Your task to perform on an android device: Go to Google maps Image 0: 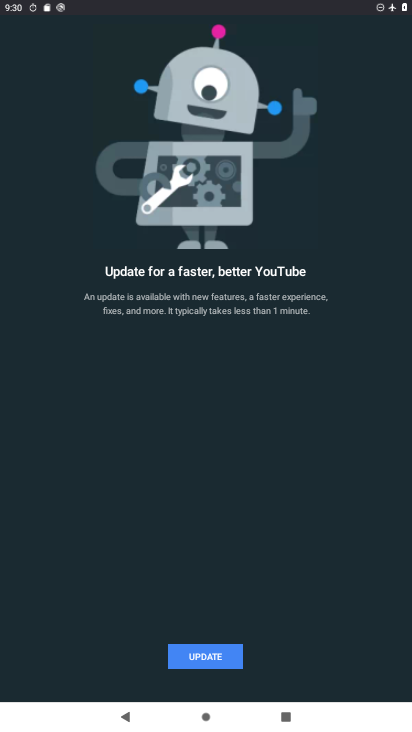
Step 0: press home button
Your task to perform on an android device: Go to Google maps Image 1: 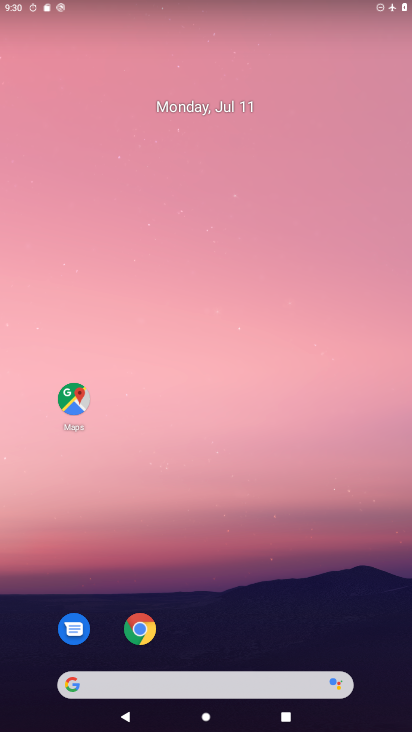
Step 1: click (73, 404)
Your task to perform on an android device: Go to Google maps Image 2: 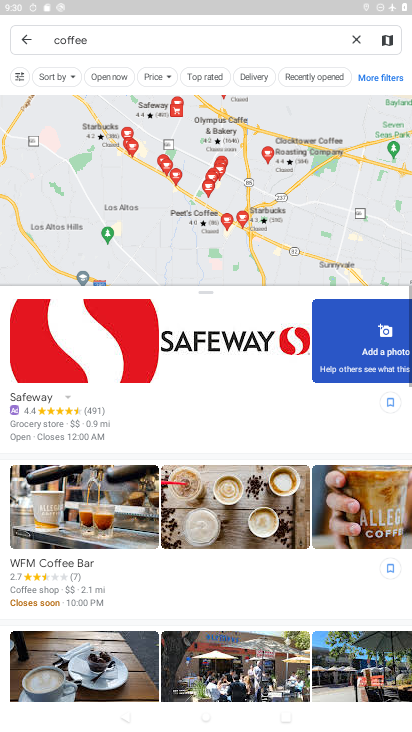
Step 2: task complete